Your task to perform on an android device: toggle airplane mode Image 0: 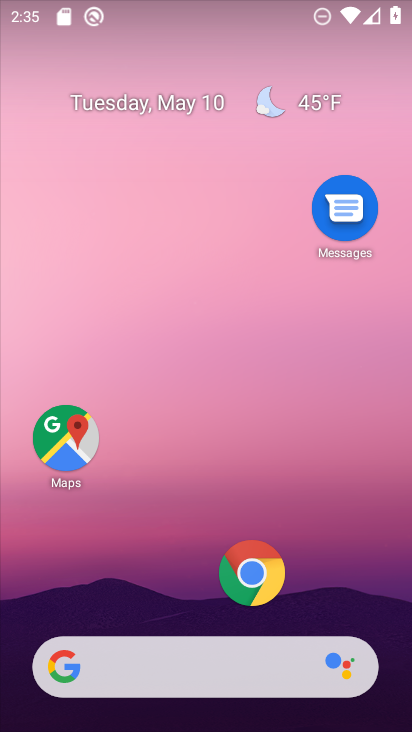
Step 0: drag from (243, 24) to (199, 0)
Your task to perform on an android device: toggle airplane mode Image 1: 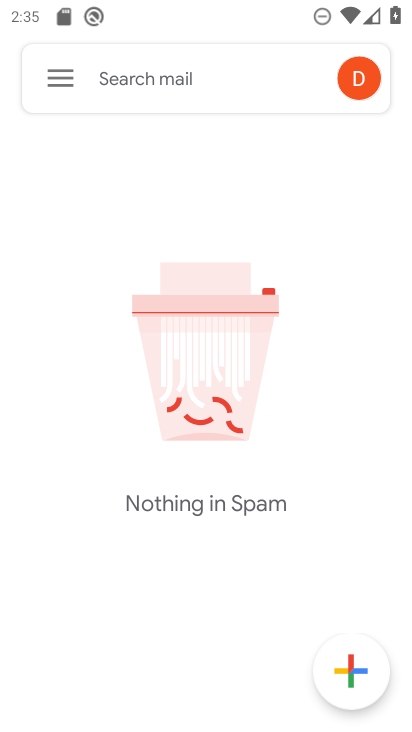
Step 1: drag from (252, 631) to (275, 220)
Your task to perform on an android device: toggle airplane mode Image 2: 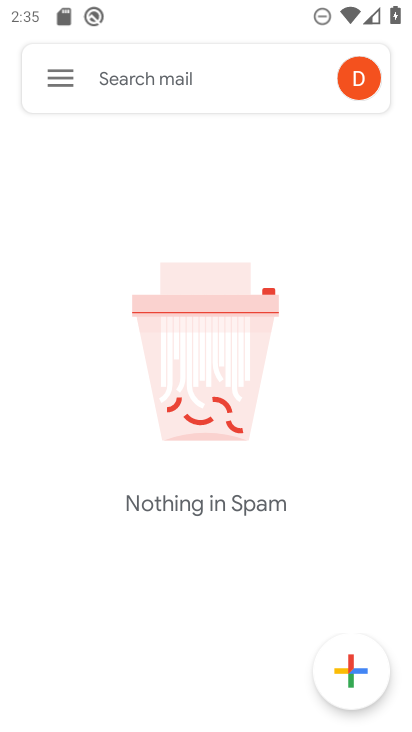
Step 2: click (194, 610)
Your task to perform on an android device: toggle airplane mode Image 3: 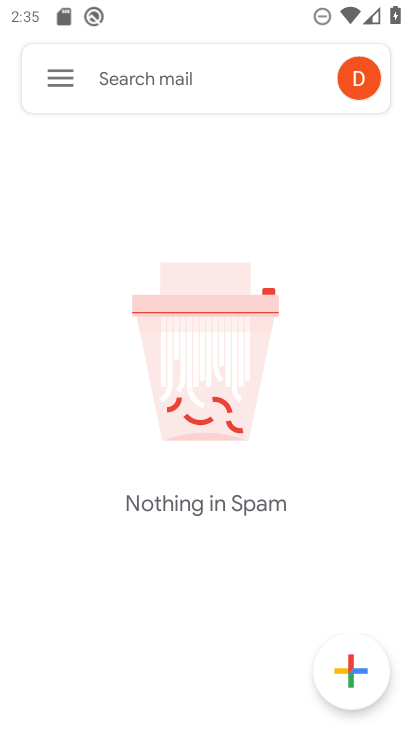
Step 3: press home button
Your task to perform on an android device: toggle airplane mode Image 4: 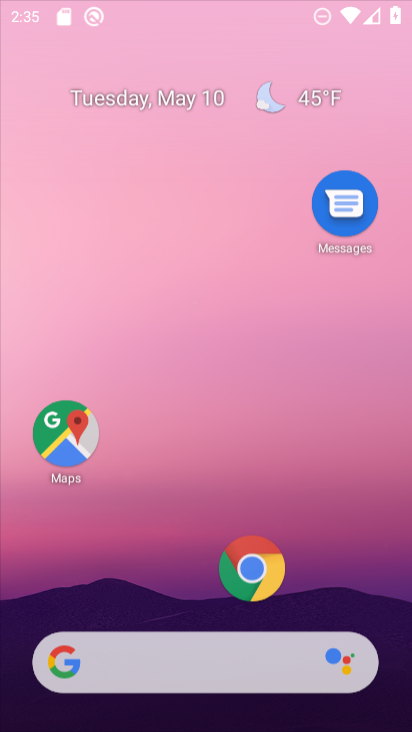
Step 4: drag from (233, 622) to (305, 275)
Your task to perform on an android device: toggle airplane mode Image 5: 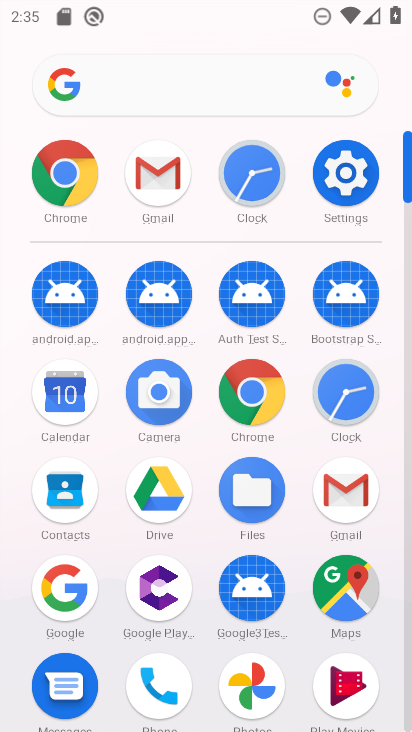
Step 5: click (368, 160)
Your task to perform on an android device: toggle airplane mode Image 6: 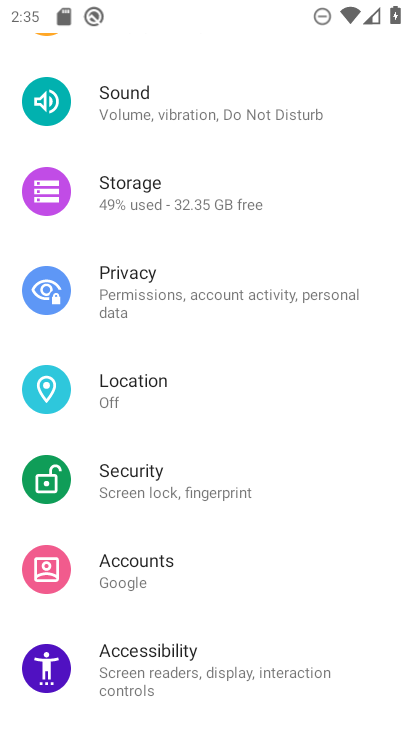
Step 6: drag from (207, 136) to (278, 661)
Your task to perform on an android device: toggle airplane mode Image 7: 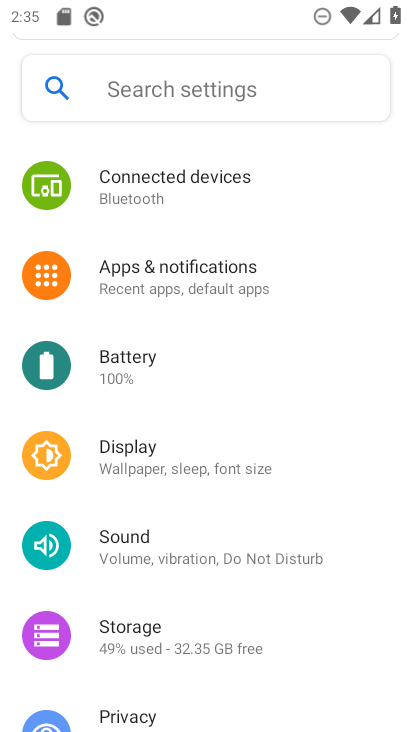
Step 7: drag from (231, 198) to (339, 642)
Your task to perform on an android device: toggle airplane mode Image 8: 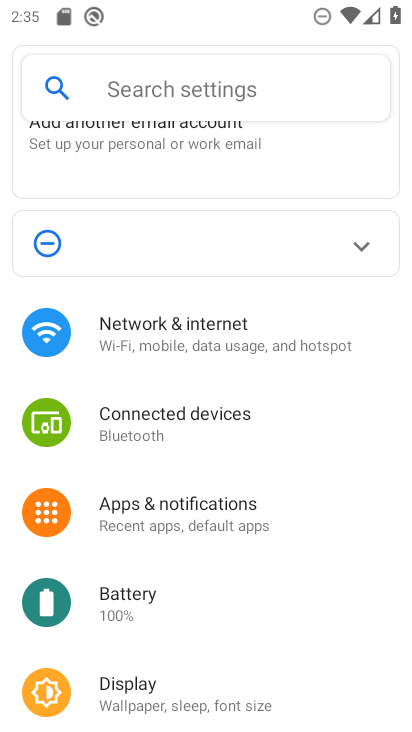
Step 8: click (222, 329)
Your task to perform on an android device: toggle airplane mode Image 9: 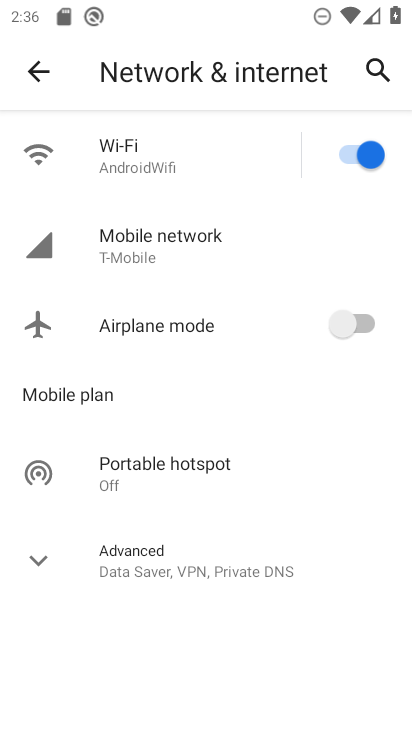
Step 9: click (286, 326)
Your task to perform on an android device: toggle airplane mode Image 10: 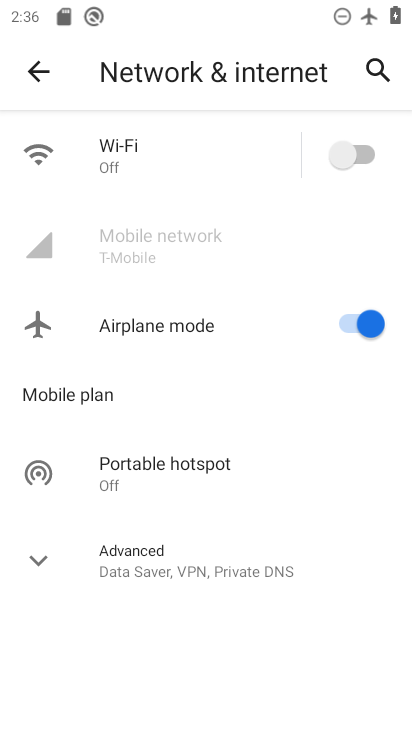
Step 10: task complete